Your task to perform on an android device: Open the stopwatch Image 0: 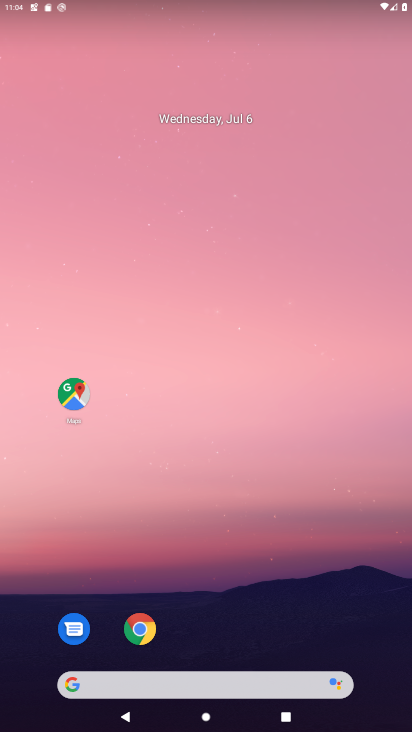
Step 0: press home button
Your task to perform on an android device: Open the stopwatch Image 1: 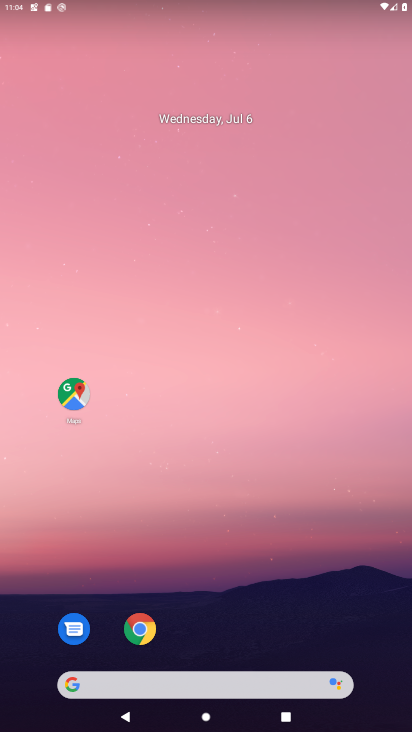
Step 1: drag from (210, 649) to (254, 0)
Your task to perform on an android device: Open the stopwatch Image 2: 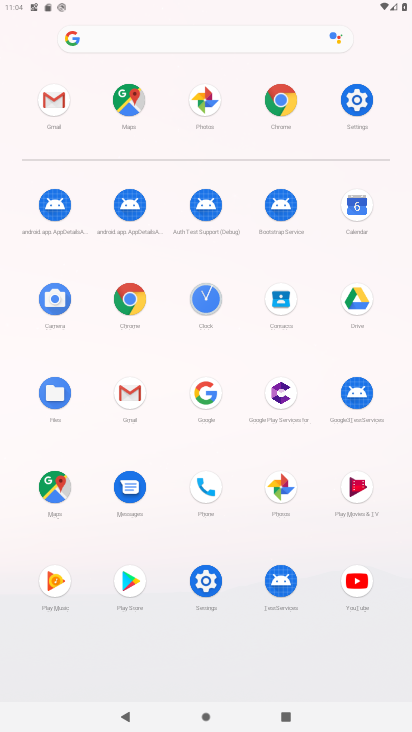
Step 2: click (205, 294)
Your task to perform on an android device: Open the stopwatch Image 3: 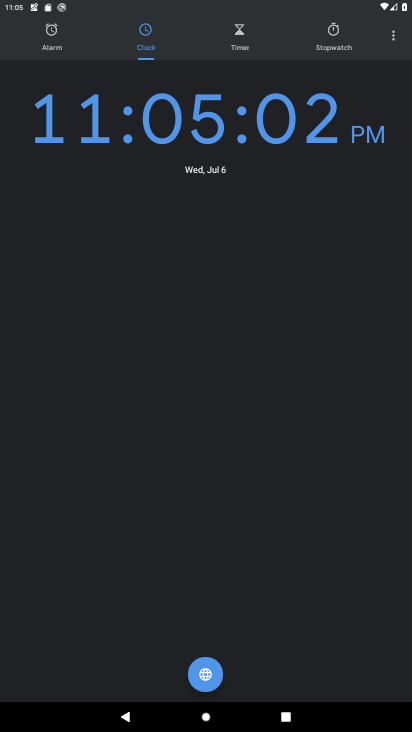
Step 3: click (390, 35)
Your task to perform on an android device: Open the stopwatch Image 4: 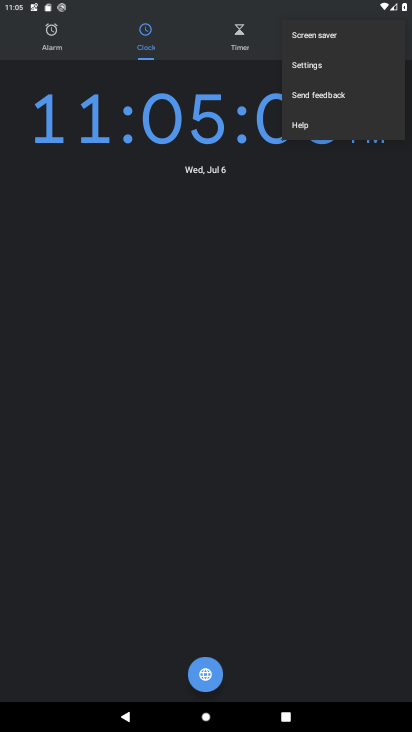
Step 4: click (274, 290)
Your task to perform on an android device: Open the stopwatch Image 5: 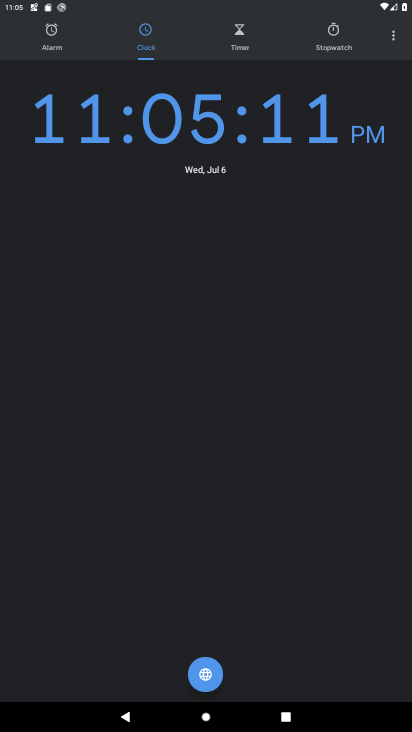
Step 5: click (331, 33)
Your task to perform on an android device: Open the stopwatch Image 6: 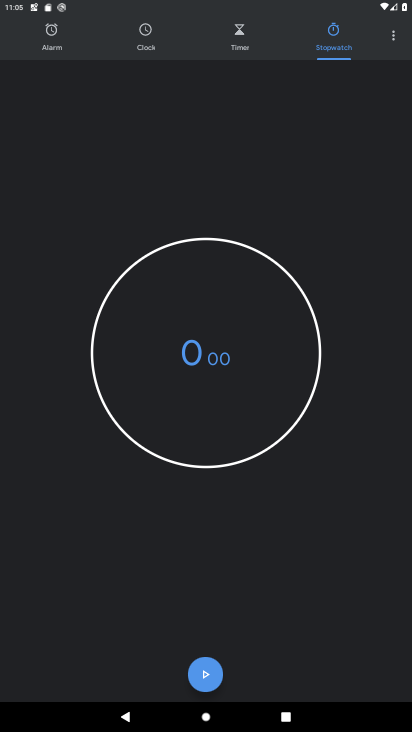
Step 6: click (204, 667)
Your task to perform on an android device: Open the stopwatch Image 7: 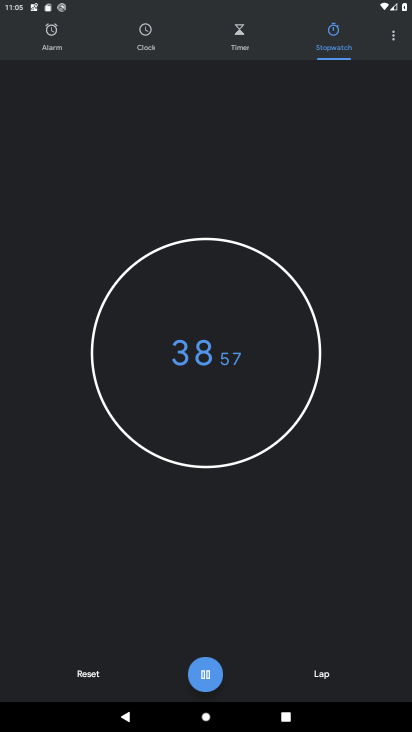
Step 7: task complete